Your task to perform on an android device: Search for sushi restaurants on Maps Image 0: 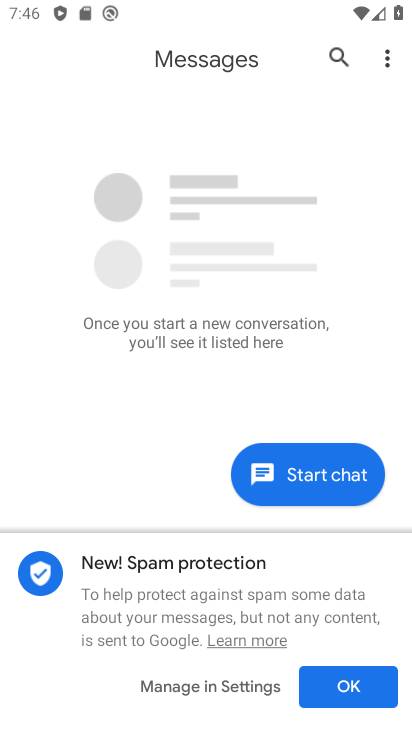
Step 0: press home button
Your task to perform on an android device: Search for sushi restaurants on Maps Image 1: 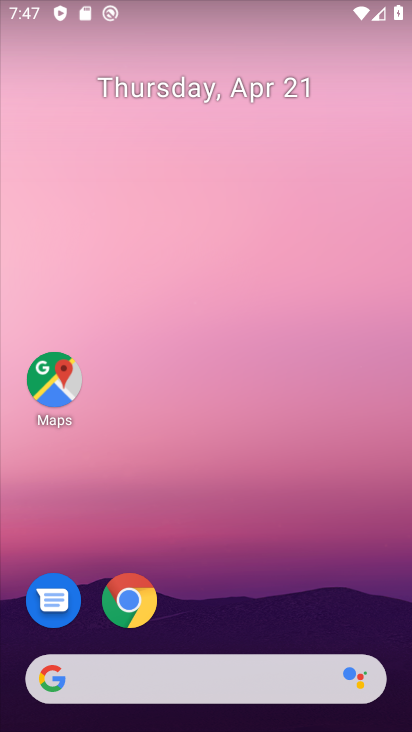
Step 1: click (50, 379)
Your task to perform on an android device: Search for sushi restaurants on Maps Image 2: 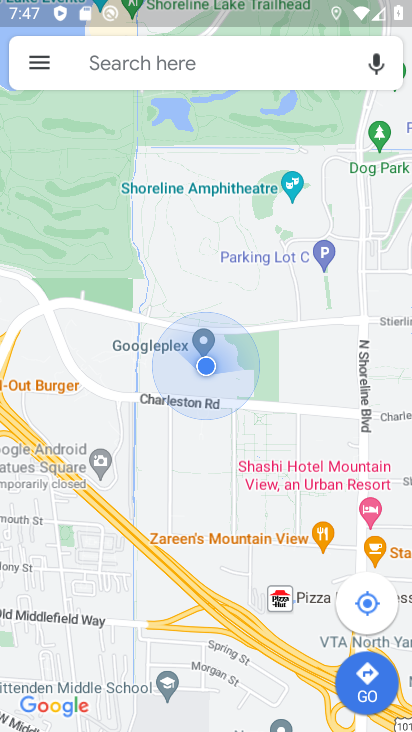
Step 2: click (188, 69)
Your task to perform on an android device: Search for sushi restaurants on Maps Image 3: 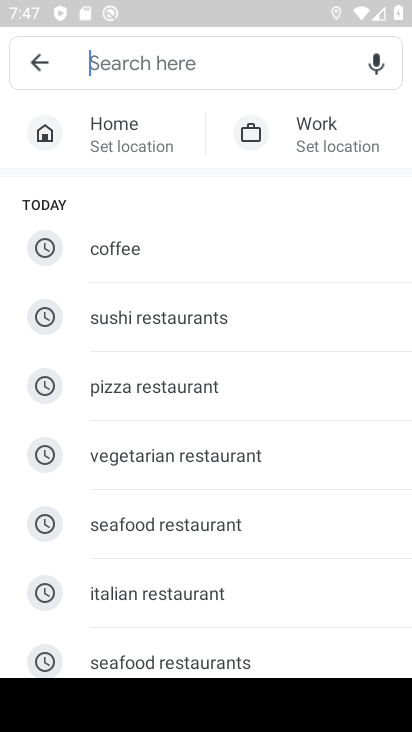
Step 3: click (110, 313)
Your task to perform on an android device: Search for sushi restaurants on Maps Image 4: 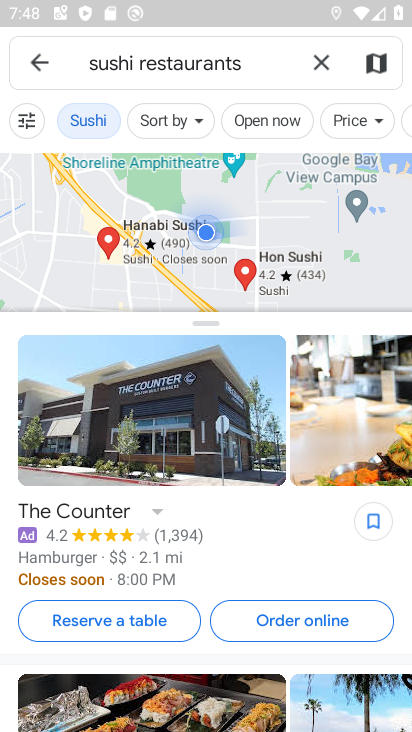
Step 4: task complete